Your task to perform on an android device: Open calendar and show me the first week of next month Image 0: 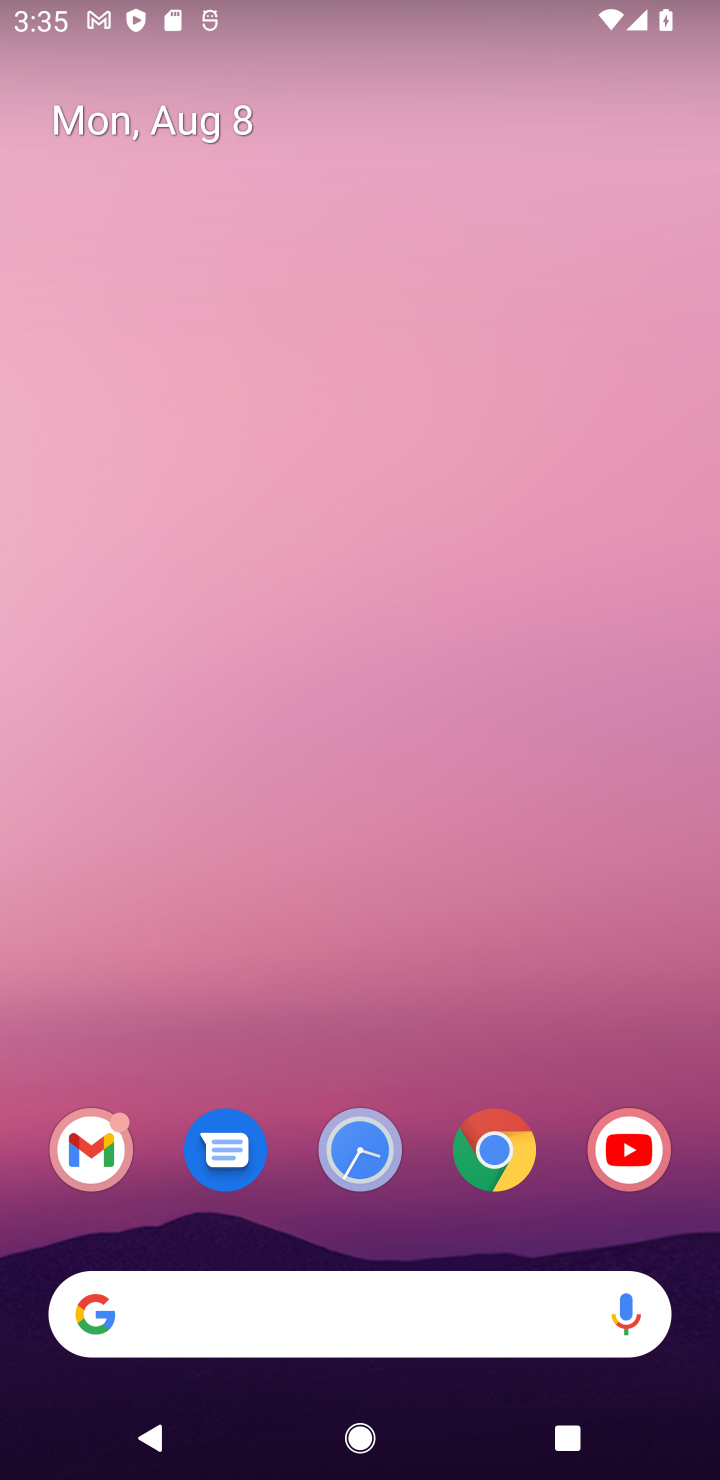
Step 0: drag from (442, 1249) to (313, 382)
Your task to perform on an android device: Open calendar and show me the first week of next month Image 1: 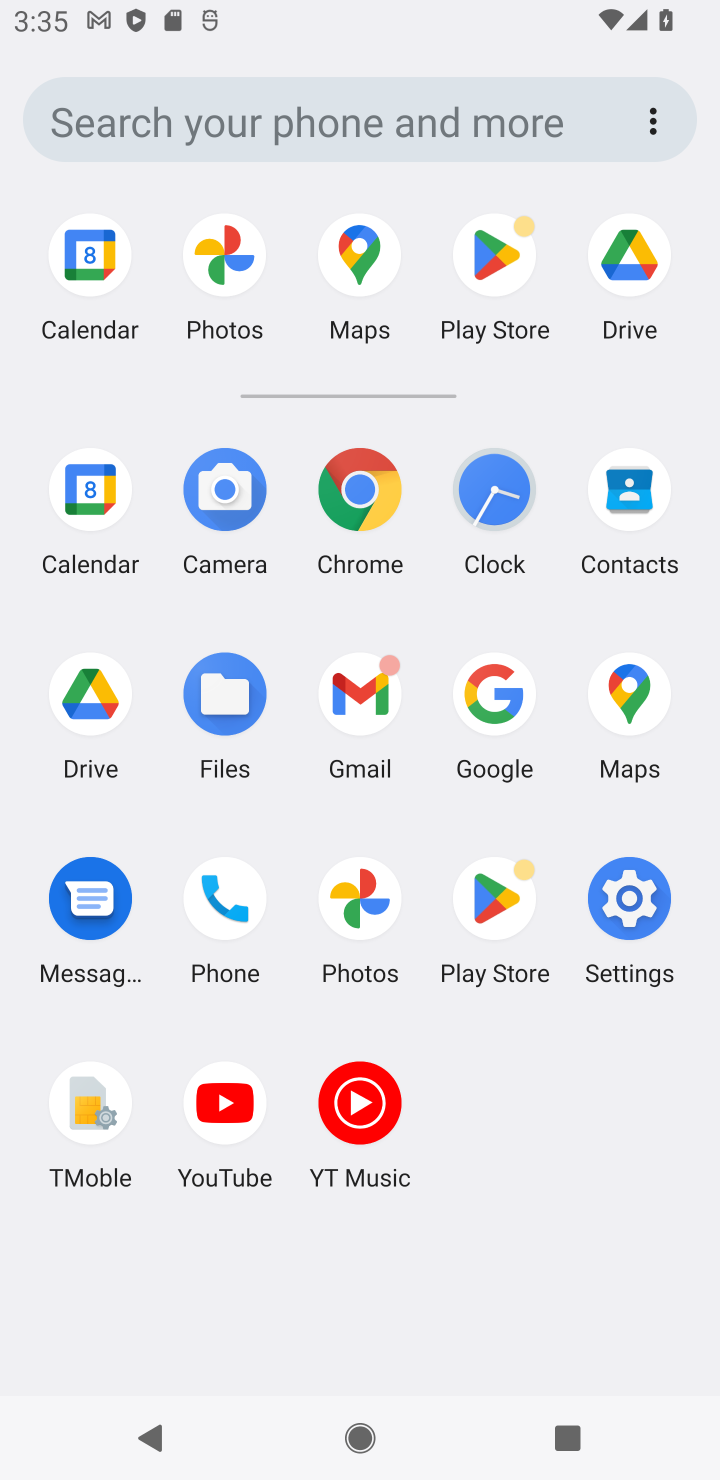
Step 1: click (50, 501)
Your task to perform on an android device: Open calendar and show me the first week of next month Image 2: 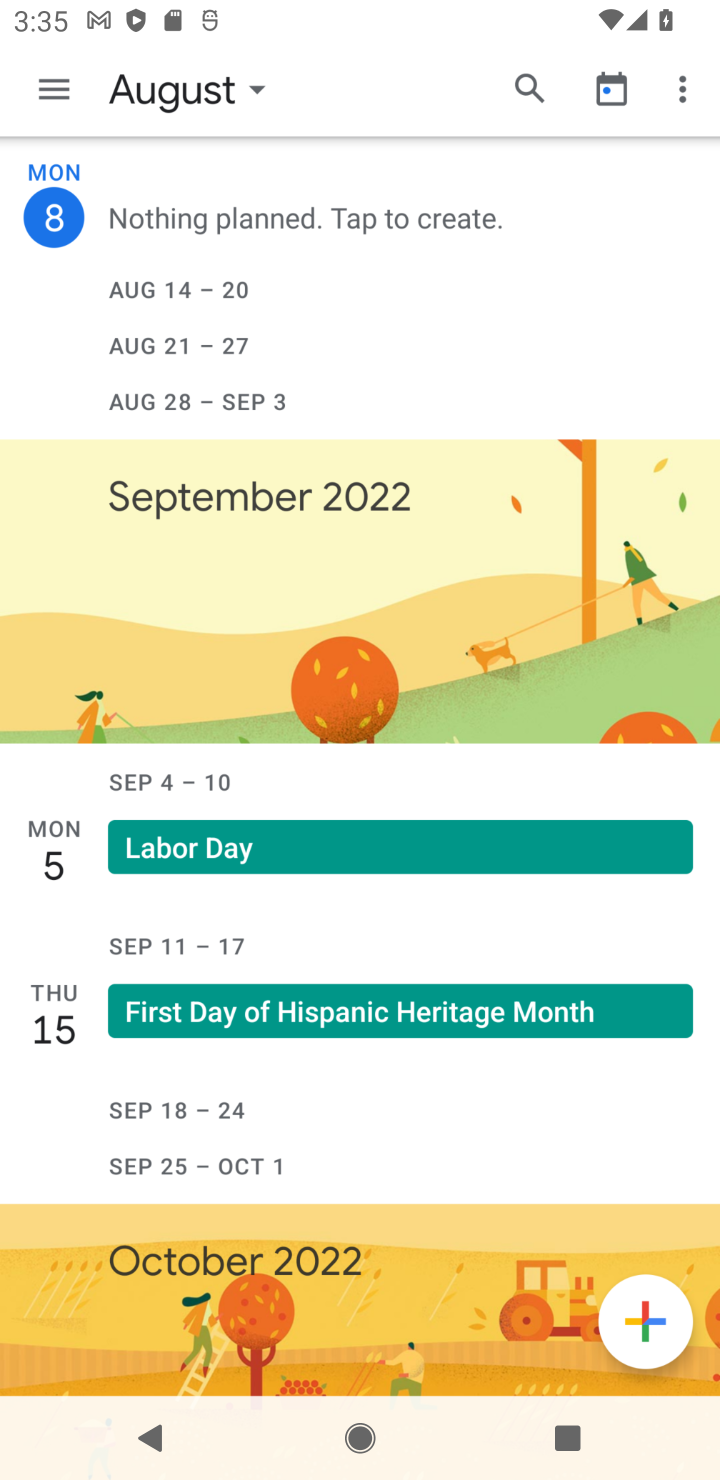
Step 2: task complete